Your task to perform on an android device: turn on wifi Image 0: 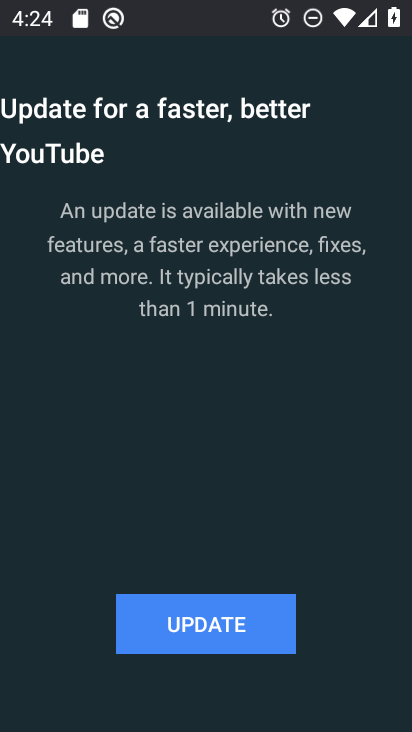
Step 0: press back button
Your task to perform on an android device: turn on wifi Image 1: 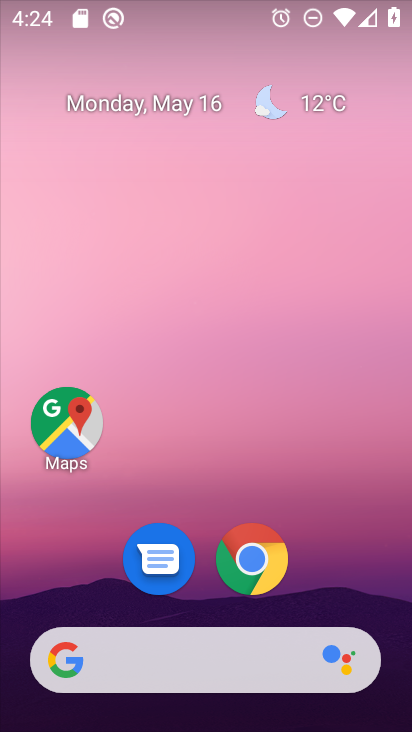
Step 1: drag from (301, 591) to (262, 226)
Your task to perform on an android device: turn on wifi Image 2: 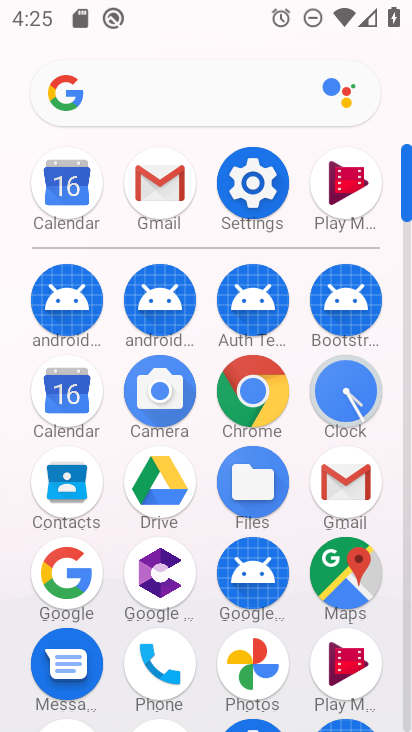
Step 2: click (262, 226)
Your task to perform on an android device: turn on wifi Image 3: 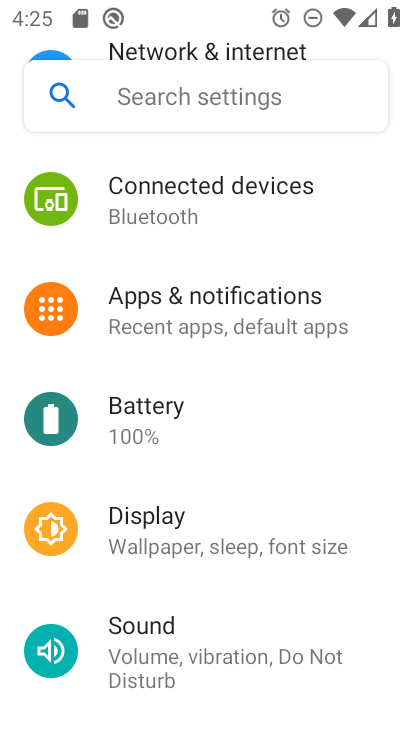
Step 3: drag from (262, 226) to (278, 731)
Your task to perform on an android device: turn on wifi Image 4: 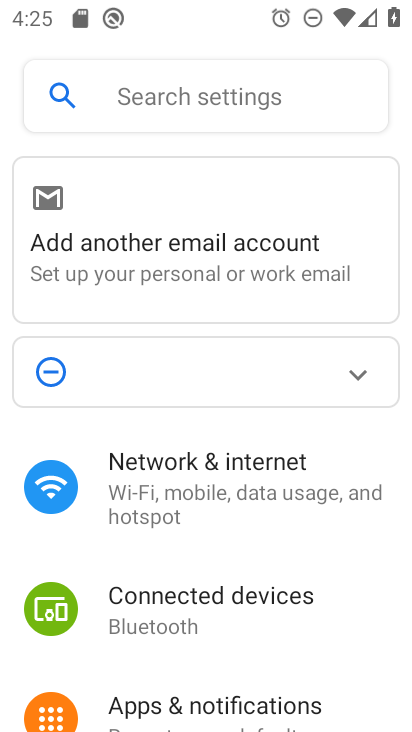
Step 4: click (269, 495)
Your task to perform on an android device: turn on wifi Image 5: 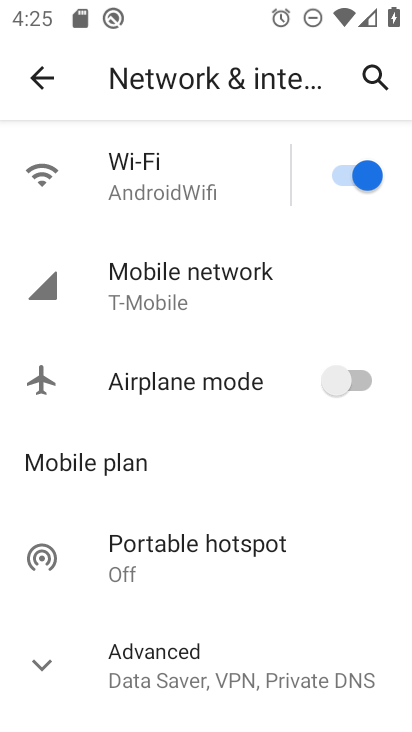
Step 5: click (153, 169)
Your task to perform on an android device: turn on wifi Image 6: 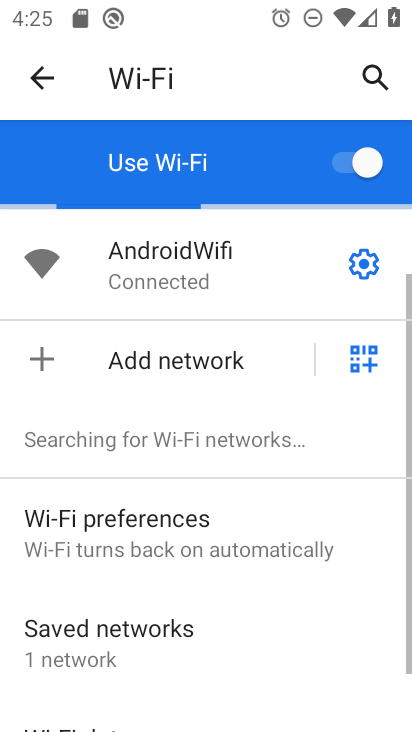
Step 6: task complete